Your task to perform on an android device: change the clock display to digital Image 0: 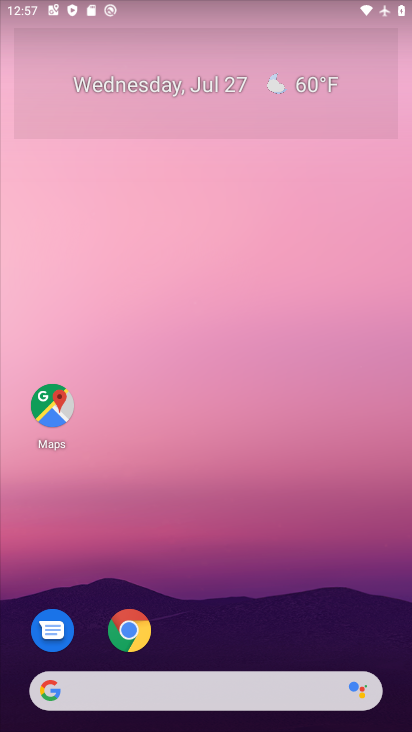
Step 0: press home button
Your task to perform on an android device: change the clock display to digital Image 1: 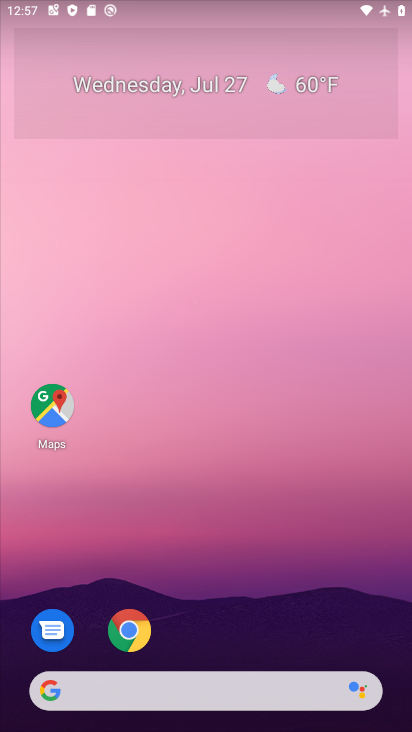
Step 1: drag from (243, 632) to (370, 177)
Your task to perform on an android device: change the clock display to digital Image 2: 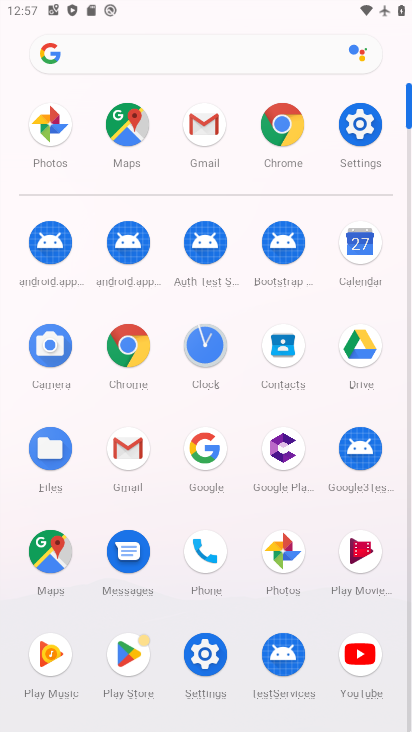
Step 2: click (205, 359)
Your task to perform on an android device: change the clock display to digital Image 3: 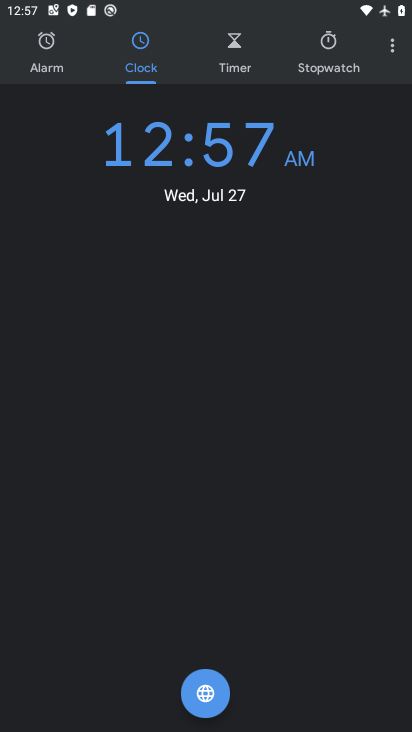
Step 3: click (391, 38)
Your task to perform on an android device: change the clock display to digital Image 4: 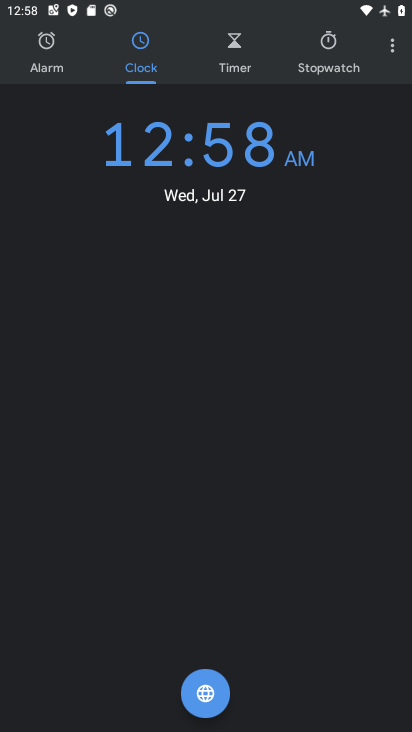
Step 4: click (395, 44)
Your task to perform on an android device: change the clock display to digital Image 5: 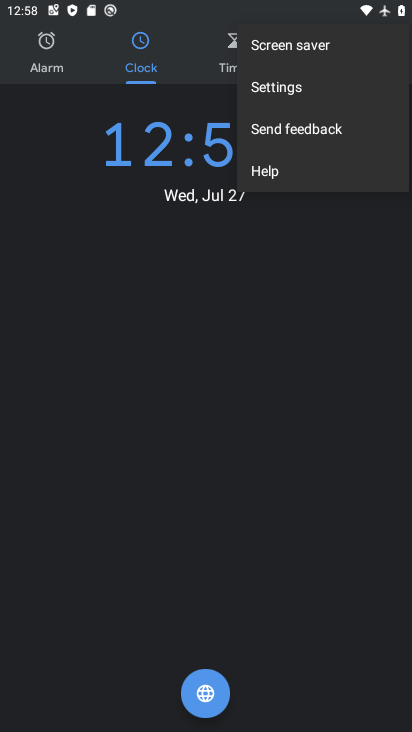
Step 5: click (309, 93)
Your task to perform on an android device: change the clock display to digital Image 6: 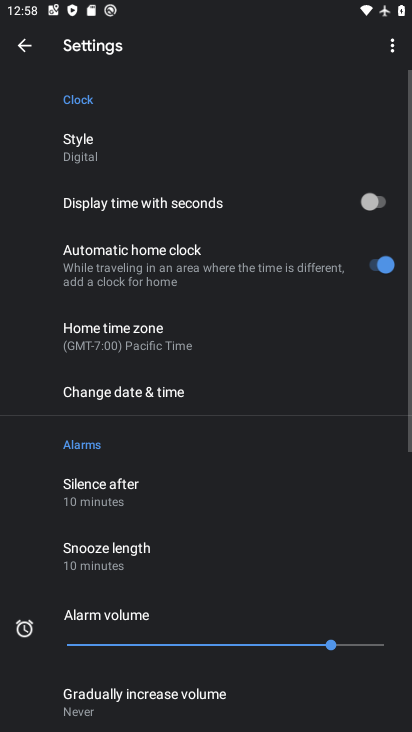
Step 6: click (80, 156)
Your task to perform on an android device: change the clock display to digital Image 7: 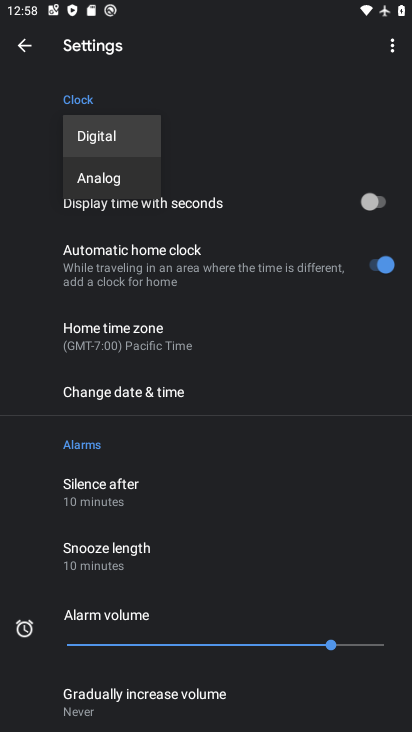
Step 7: task complete